Your task to perform on an android device: Open calendar and show me the fourth week of next month Image 0: 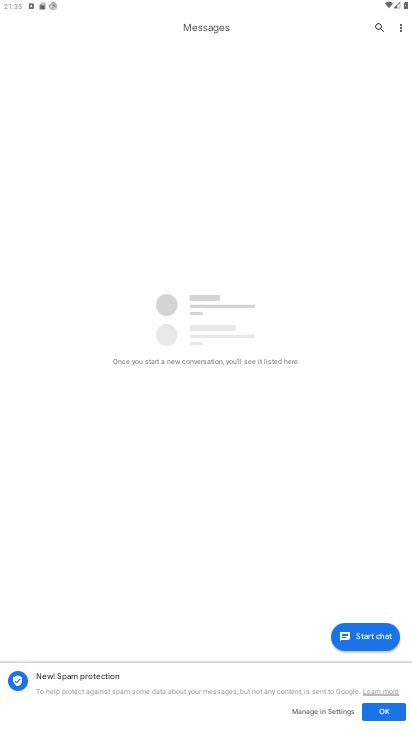
Step 0: press home button
Your task to perform on an android device: Open calendar and show me the fourth week of next month Image 1: 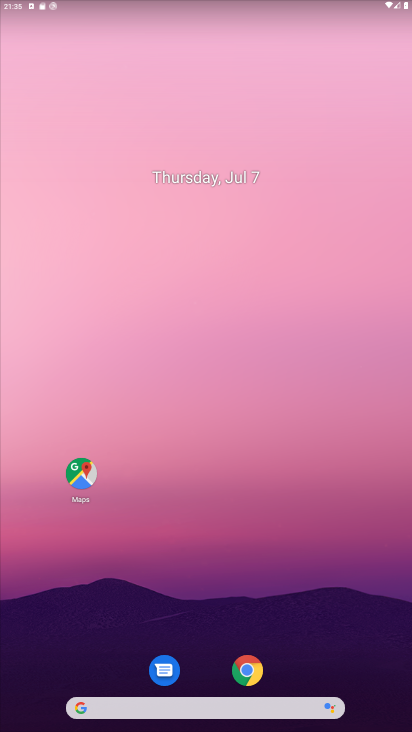
Step 1: drag from (53, 527) to (242, 126)
Your task to perform on an android device: Open calendar and show me the fourth week of next month Image 2: 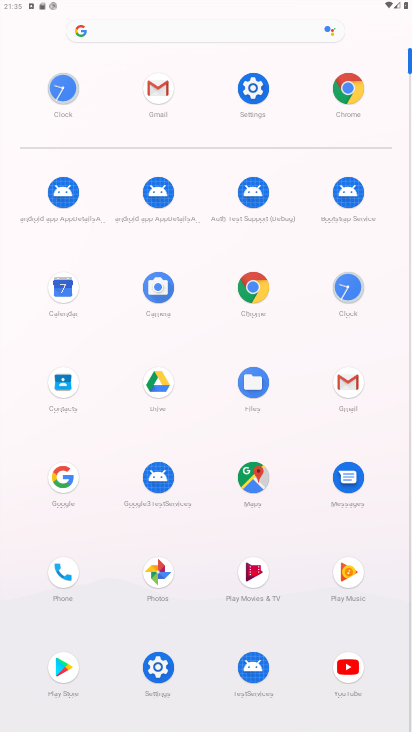
Step 2: click (302, 119)
Your task to perform on an android device: Open calendar and show me the fourth week of next month Image 3: 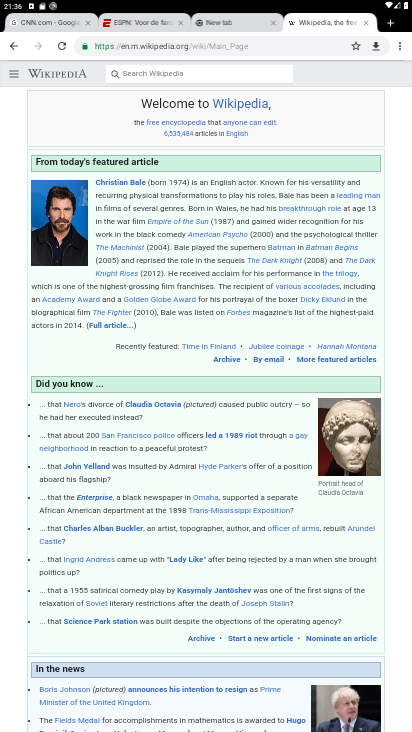
Step 3: task complete